Your task to perform on an android device: See recent photos Image 0: 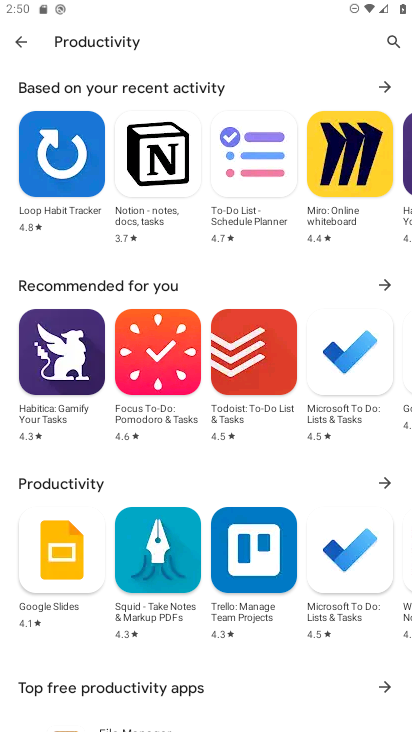
Step 0: press home button
Your task to perform on an android device: See recent photos Image 1: 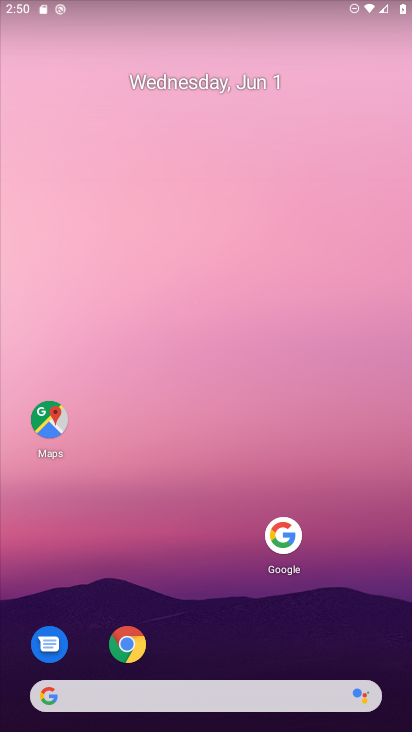
Step 1: drag from (165, 693) to (305, 192)
Your task to perform on an android device: See recent photos Image 2: 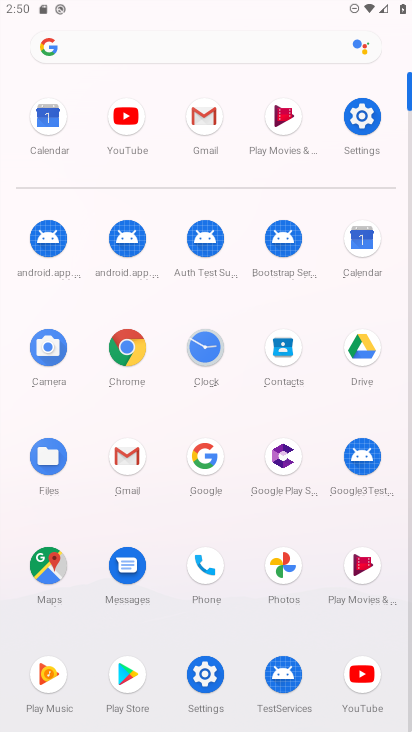
Step 2: click (277, 569)
Your task to perform on an android device: See recent photos Image 3: 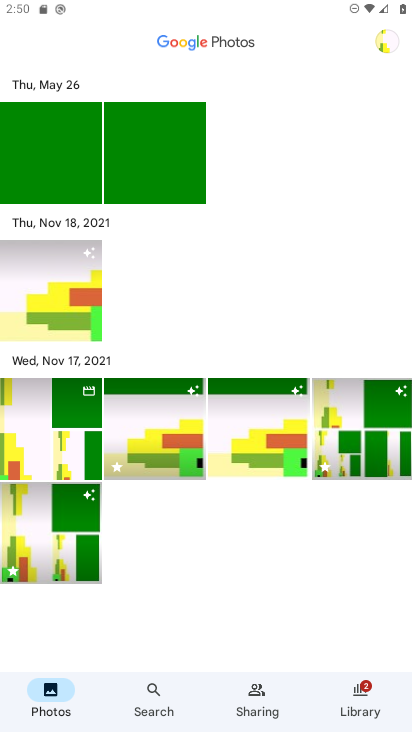
Step 3: click (156, 705)
Your task to perform on an android device: See recent photos Image 4: 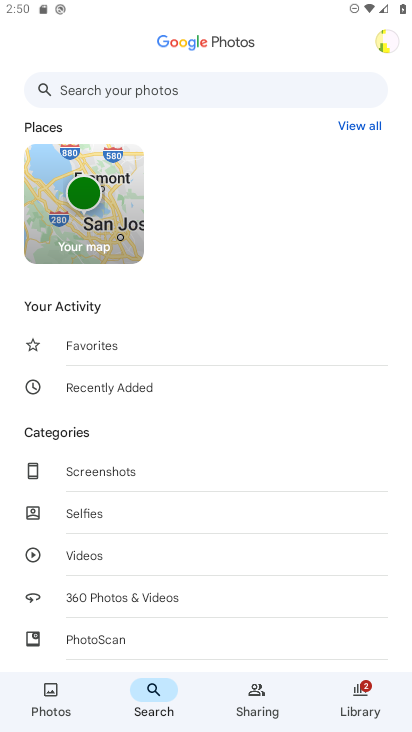
Step 4: click (118, 388)
Your task to perform on an android device: See recent photos Image 5: 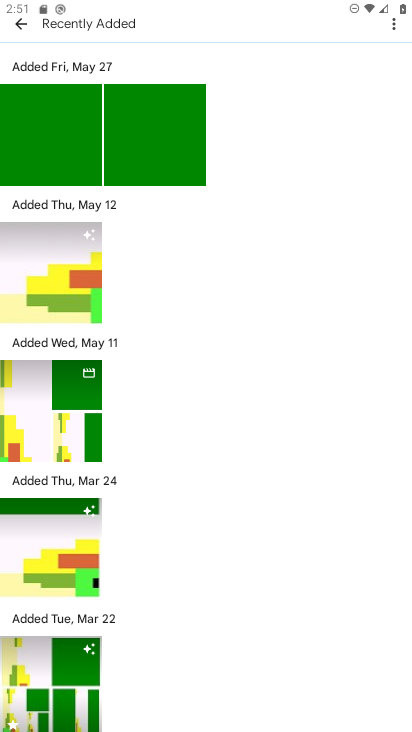
Step 5: task complete